Your task to perform on an android device: Open settings on Google Maps Image 0: 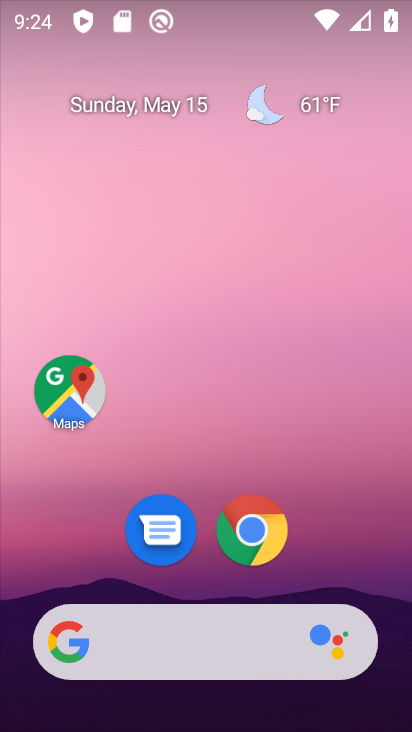
Step 0: drag from (218, 719) to (226, 109)
Your task to perform on an android device: Open settings on Google Maps Image 1: 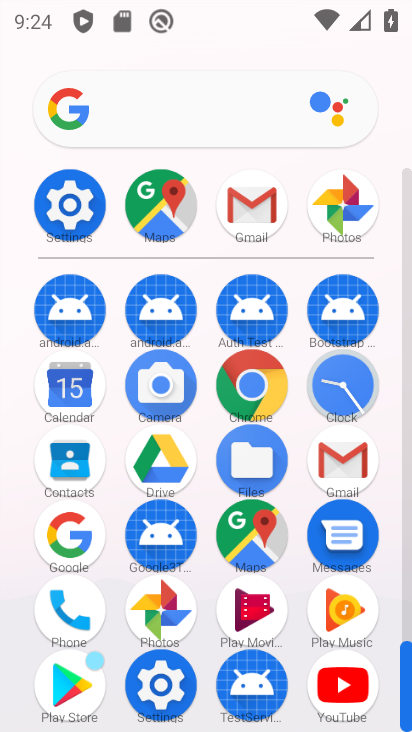
Step 1: click (254, 534)
Your task to perform on an android device: Open settings on Google Maps Image 2: 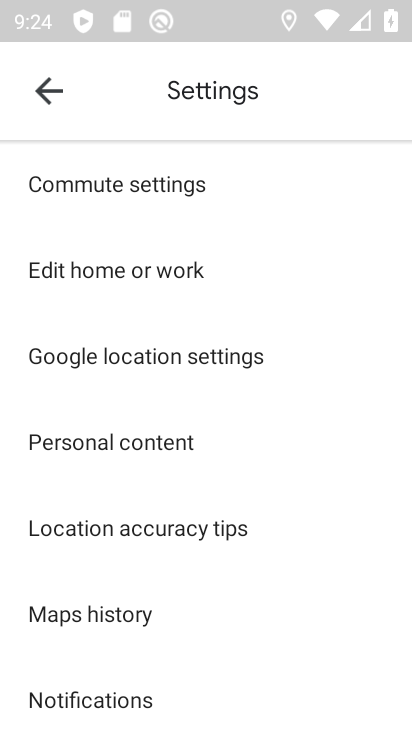
Step 2: task complete